Your task to perform on an android device: Go to Google Image 0: 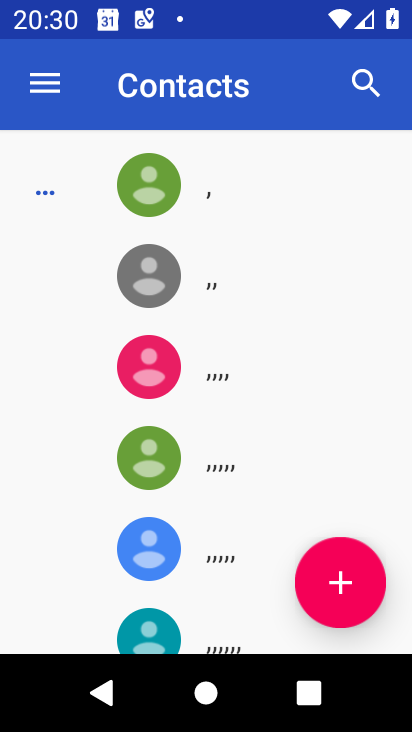
Step 0: press home button
Your task to perform on an android device: Go to Google Image 1: 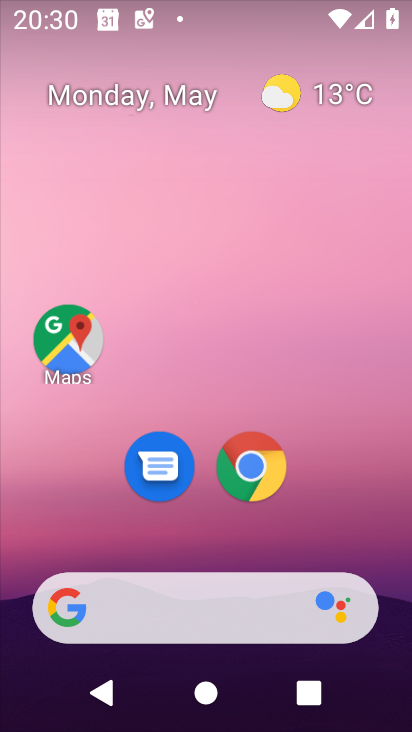
Step 1: drag from (321, 416) to (324, 237)
Your task to perform on an android device: Go to Google Image 2: 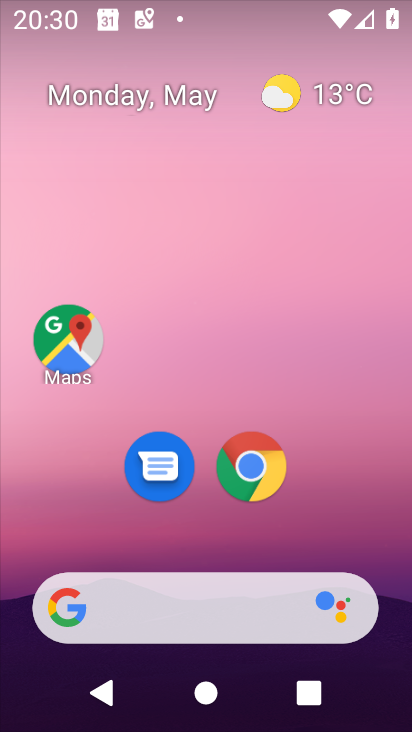
Step 2: drag from (249, 598) to (274, 236)
Your task to perform on an android device: Go to Google Image 3: 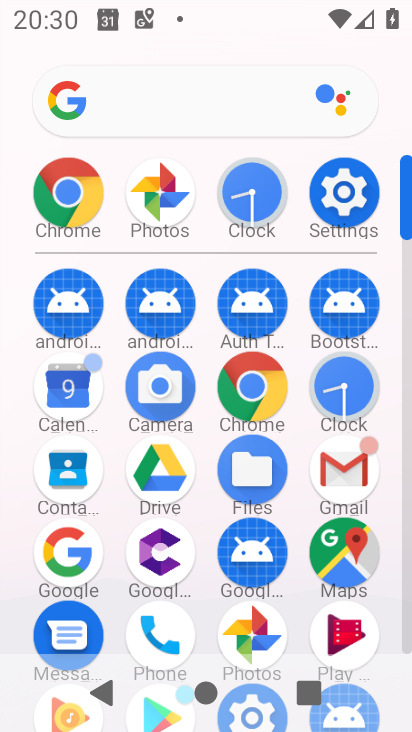
Step 3: click (54, 551)
Your task to perform on an android device: Go to Google Image 4: 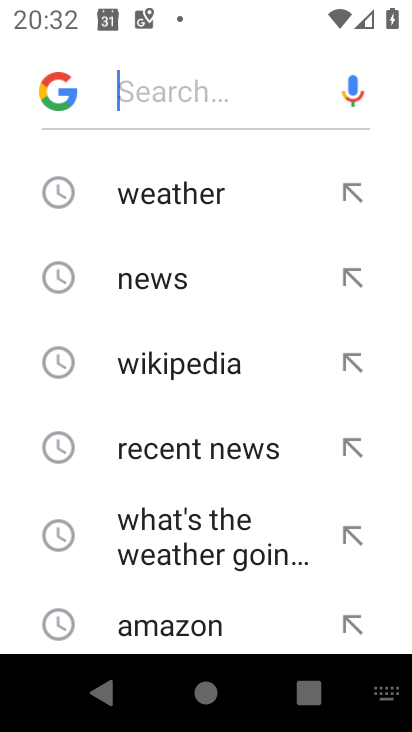
Step 4: task complete